Your task to perform on an android device: Do I have any events this weekend? Image 0: 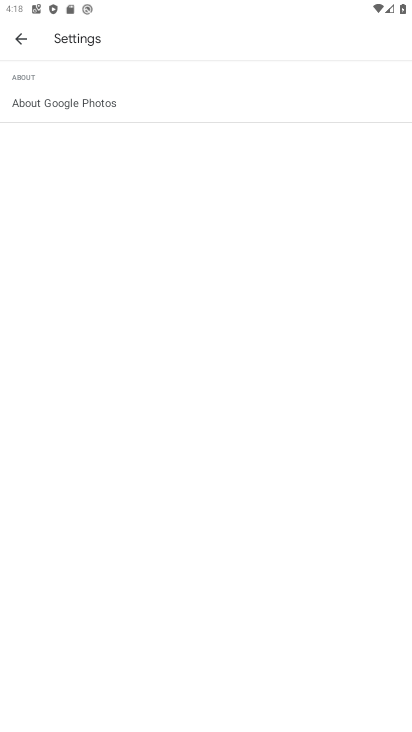
Step 0: press home button
Your task to perform on an android device: Do I have any events this weekend? Image 1: 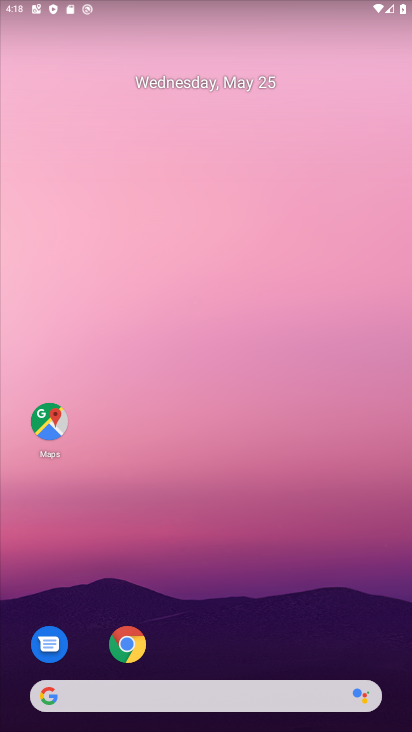
Step 1: drag from (268, 666) to (253, 33)
Your task to perform on an android device: Do I have any events this weekend? Image 2: 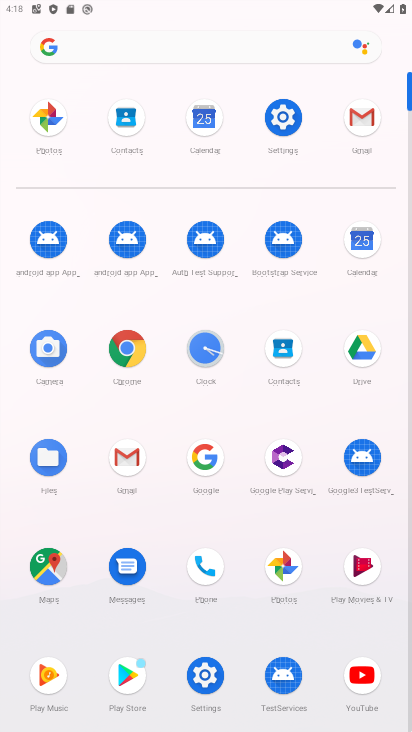
Step 2: click (197, 116)
Your task to perform on an android device: Do I have any events this weekend? Image 3: 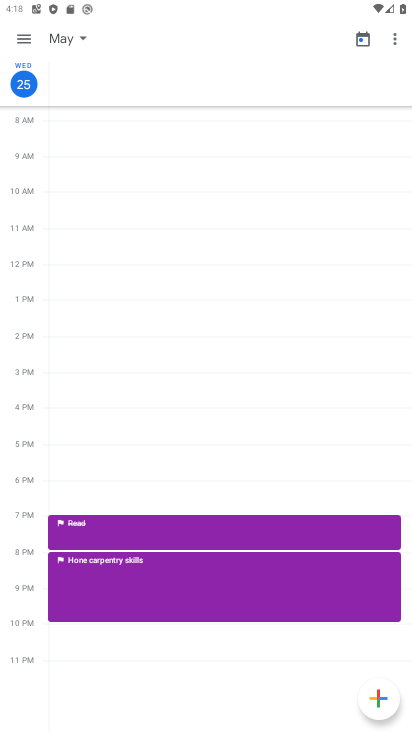
Step 3: click (22, 43)
Your task to perform on an android device: Do I have any events this weekend? Image 4: 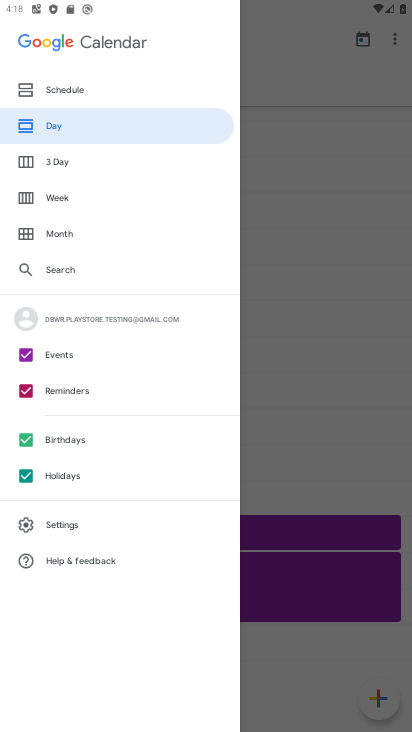
Step 4: click (26, 386)
Your task to perform on an android device: Do I have any events this weekend? Image 5: 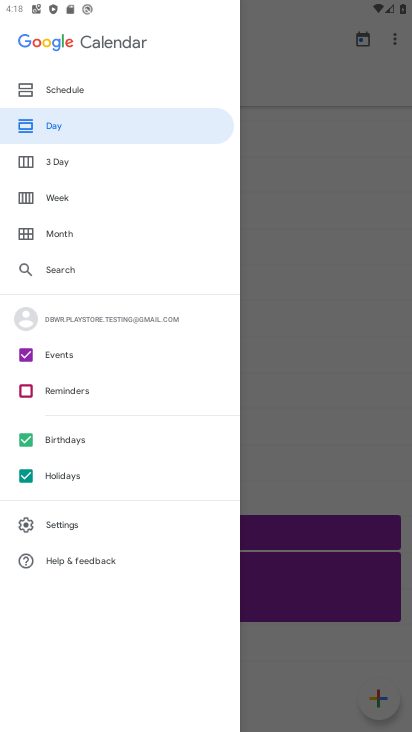
Step 5: click (20, 442)
Your task to perform on an android device: Do I have any events this weekend? Image 6: 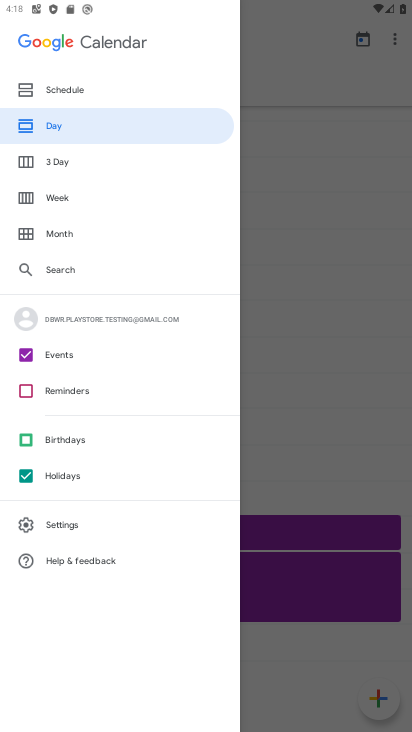
Step 6: click (18, 483)
Your task to perform on an android device: Do I have any events this weekend? Image 7: 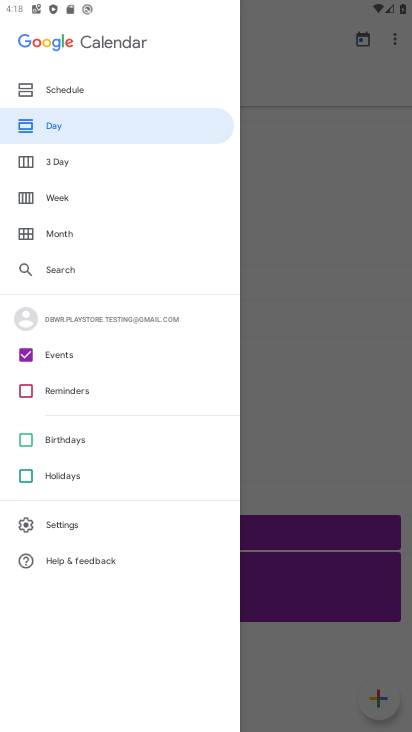
Step 7: click (37, 197)
Your task to perform on an android device: Do I have any events this weekend? Image 8: 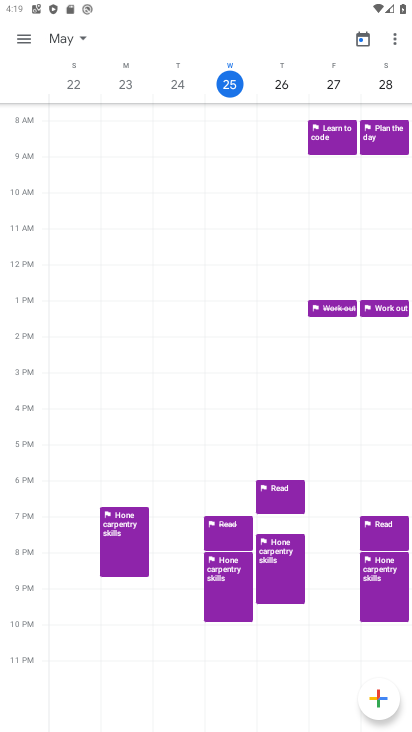
Step 8: click (23, 42)
Your task to perform on an android device: Do I have any events this weekend? Image 9: 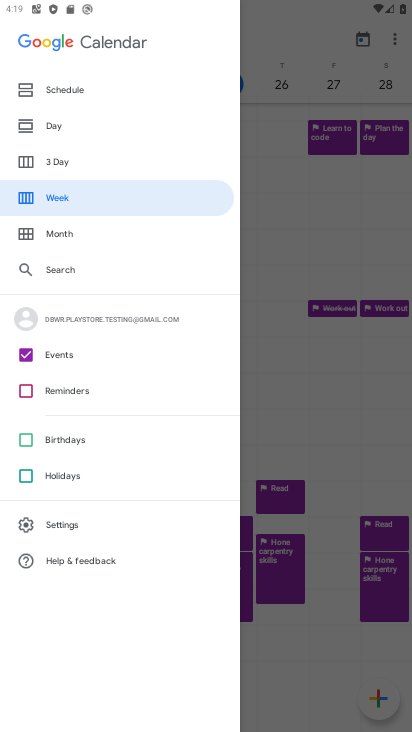
Step 9: click (29, 122)
Your task to perform on an android device: Do I have any events this weekend? Image 10: 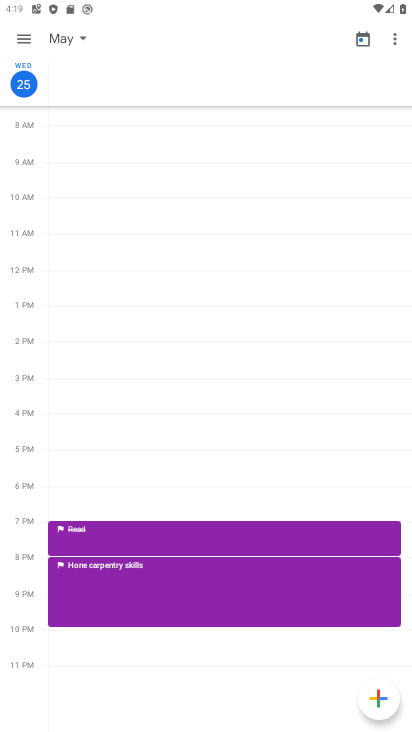
Step 10: click (76, 40)
Your task to perform on an android device: Do I have any events this weekend? Image 11: 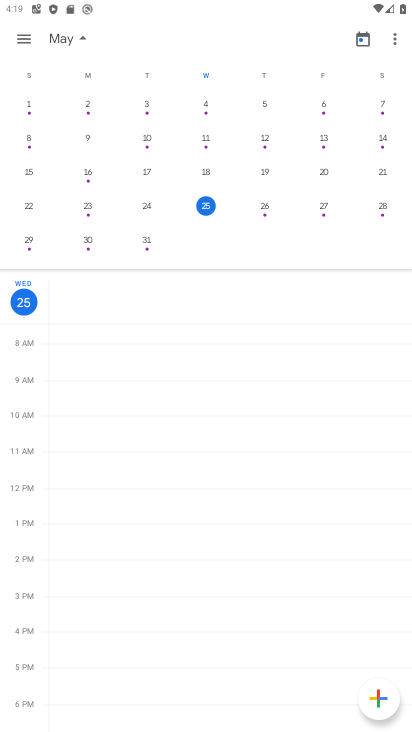
Step 11: click (380, 210)
Your task to perform on an android device: Do I have any events this weekend? Image 12: 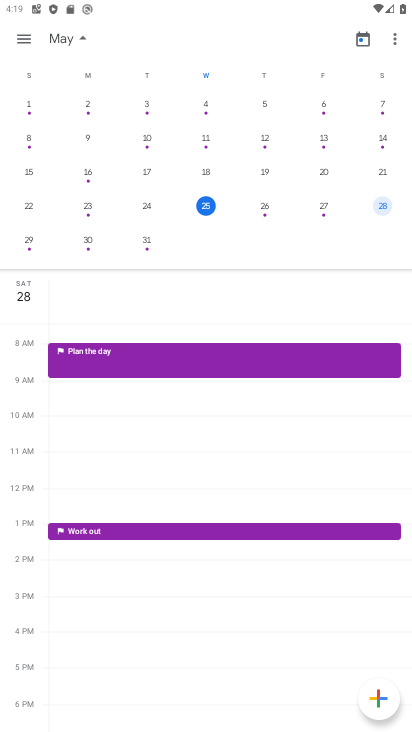
Step 12: task complete